Your task to perform on an android device: star an email in the gmail app Image 0: 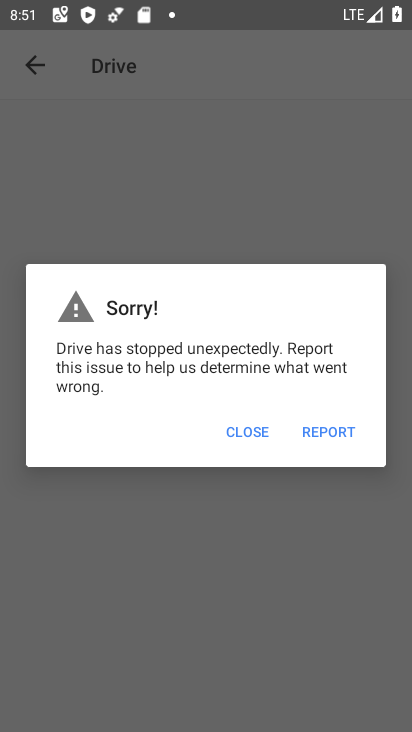
Step 0: press back button
Your task to perform on an android device: star an email in the gmail app Image 1: 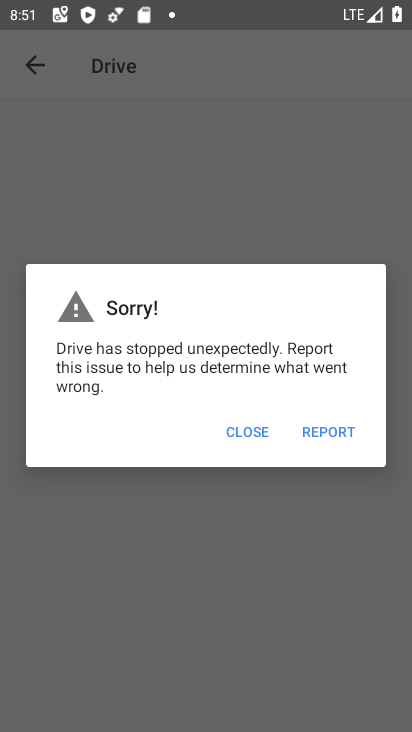
Step 1: press home button
Your task to perform on an android device: star an email in the gmail app Image 2: 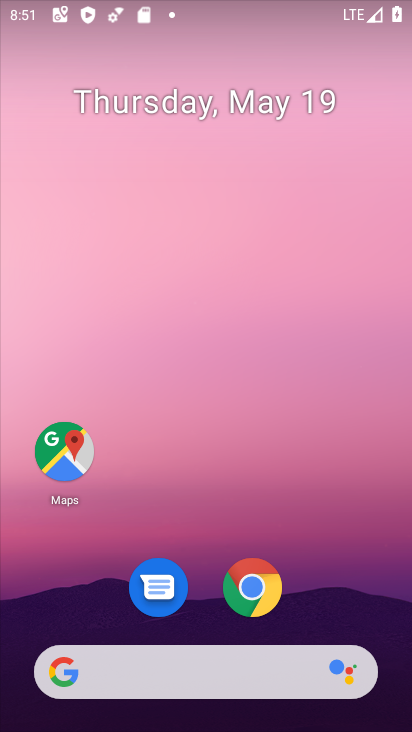
Step 2: drag from (337, 590) to (266, 4)
Your task to perform on an android device: star an email in the gmail app Image 3: 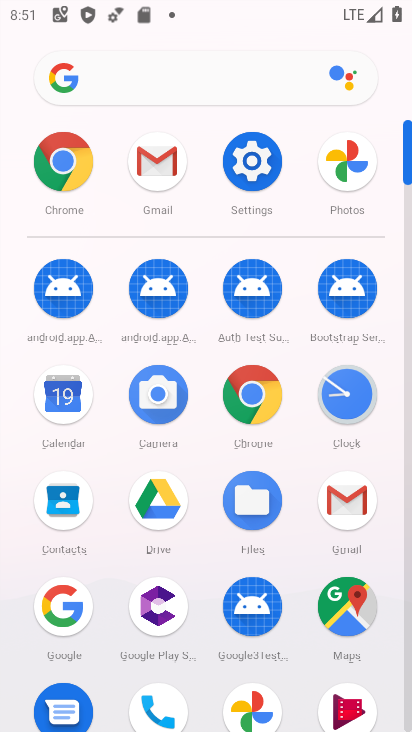
Step 3: drag from (9, 597) to (38, 297)
Your task to perform on an android device: star an email in the gmail app Image 4: 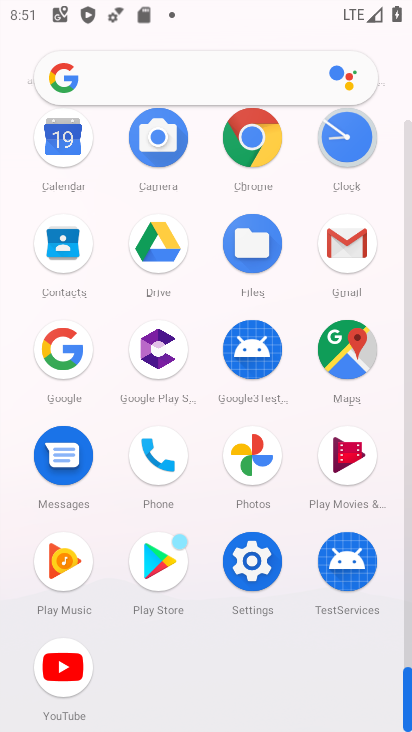
Step 4: click (349, 239)
Your task to perform on an android device: star an email in the gmail app Image 5: 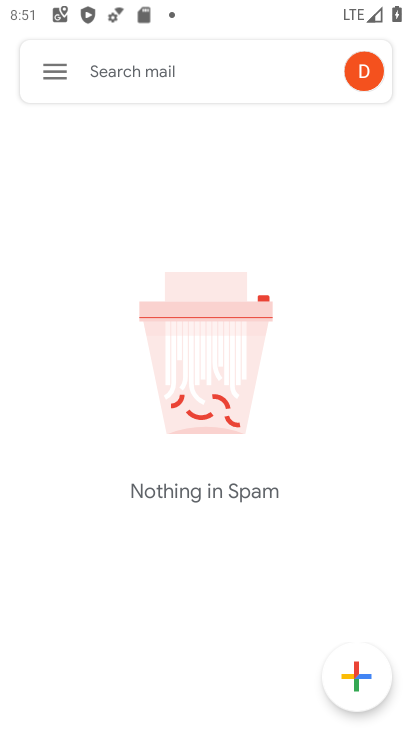
Step 5: click (52, 59)
Your task to perform on an android device: star an email in the gmail app Image 6: 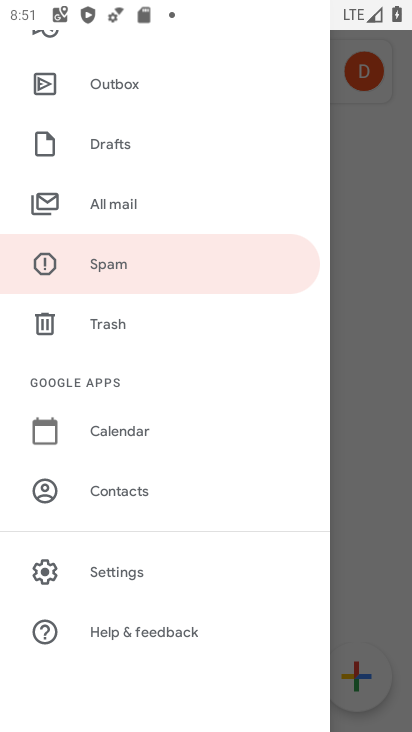
Step 6: drag from (182, 143) to (190, 540)
Your task to perform on an android device: star an email in the gmail app Image 7: 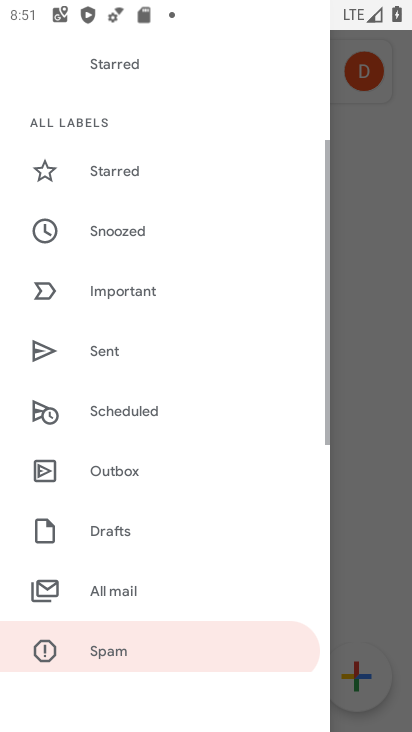
Step 7: click (133, 171)
Your task to perform on an android device: star an email in the gmail app Image 8: 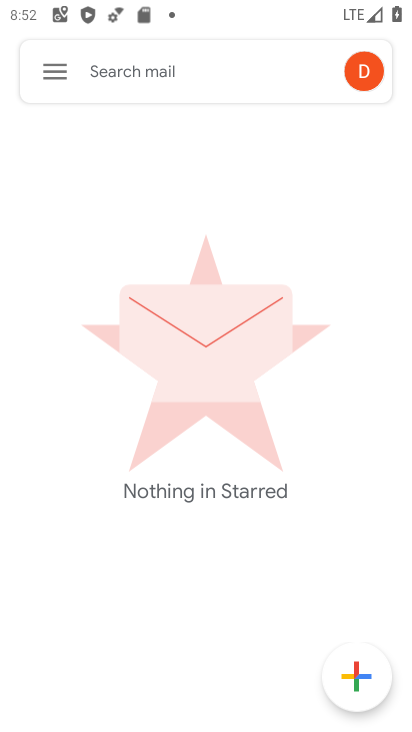
Step 8: click (55, 71)
Your task to perform on an android device: star an email in the gmail app Image 9: 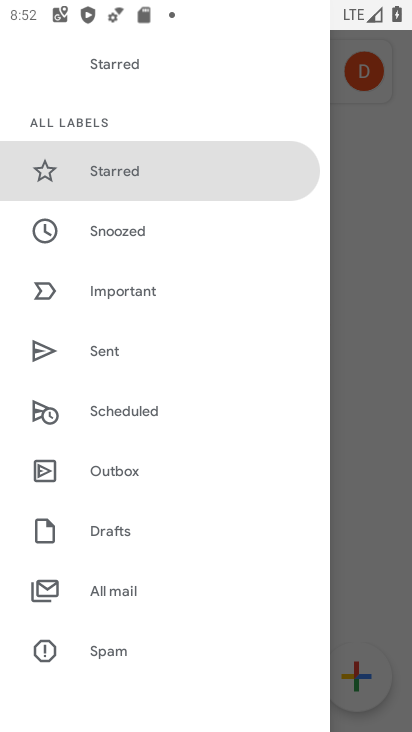
Step 9: drag from (274, 153) to (273, 454)
Your task to perform on an android device: star an email in the gmail app Image 10: 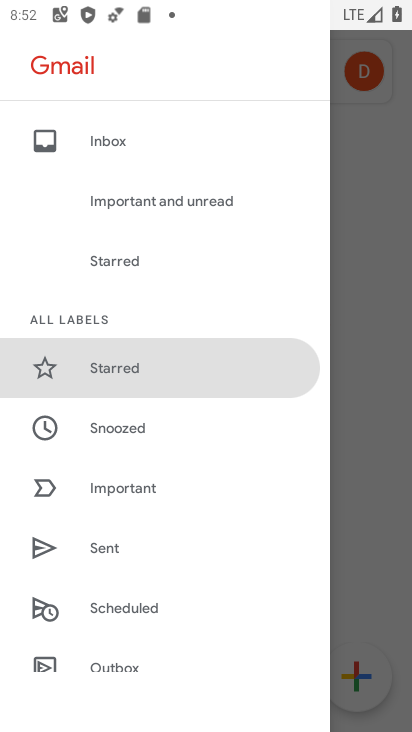
Step 10: click (134, 373)
Your task to perform on an android device: star an email in the gmail app Image 11: 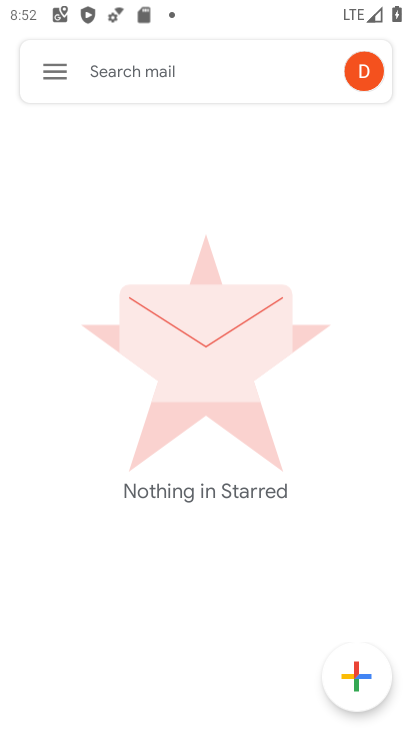
Step 11: task complete